Your task to perform on an android device: toggle translation in the chrome app Image 0: 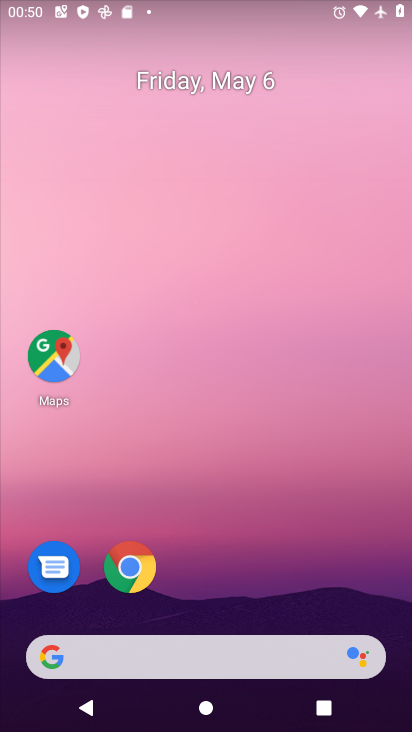
Step 0: click (118, 565)
Your task to perform on an android device: toggle translation in the chrome app Image 1: 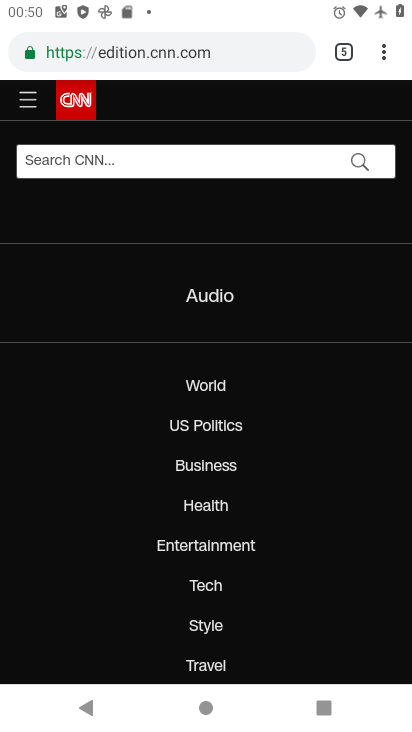
Step 1: press home button
Your task to perform on an android device: toggle translation in the chrome app Image 2: 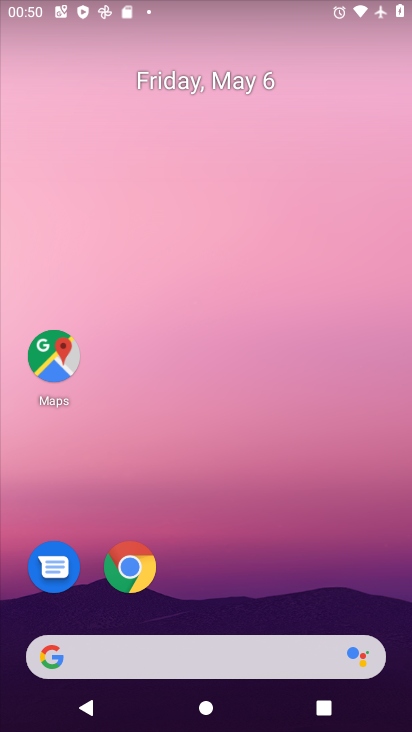
Step 2: click (164, 576)
Your task to perform on an android device: toggle translation in the chrome app Image 3: 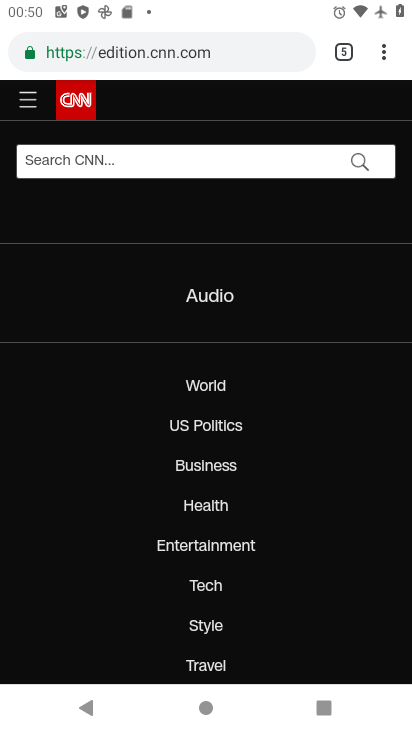
Step 3: click (384, 49)
Your task to perform on an android device: toggle translation in the chrome app Image 4: 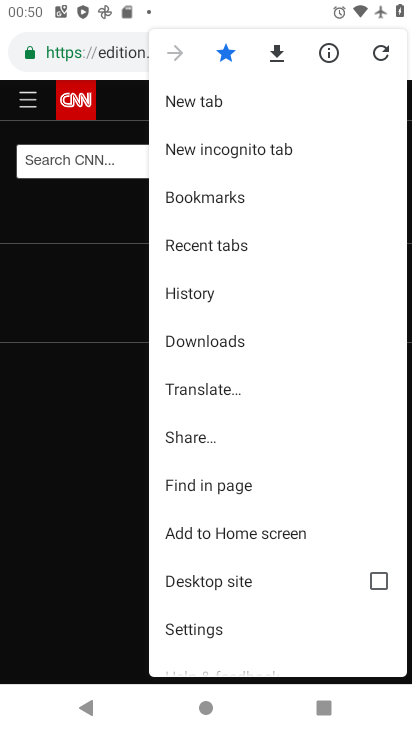
Step 4: click (203, 627)
Your task to perform on an android device: toggle translation in the chrome app Image 5: 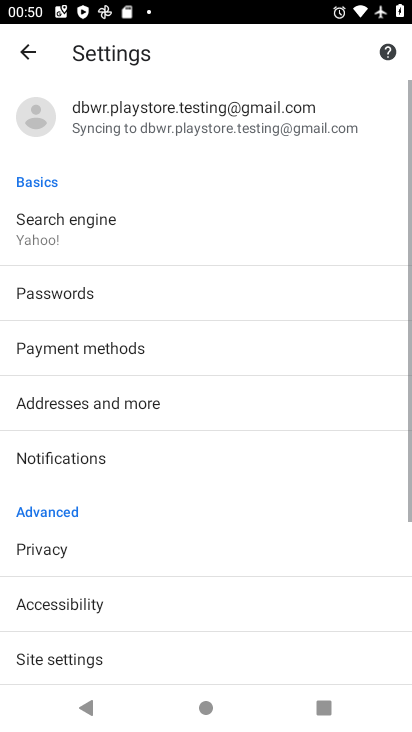
Step 5: drag from (205, 587) to (246, 308)
Your task to perform on an android device: toggle translation in the chrome app Image 6: 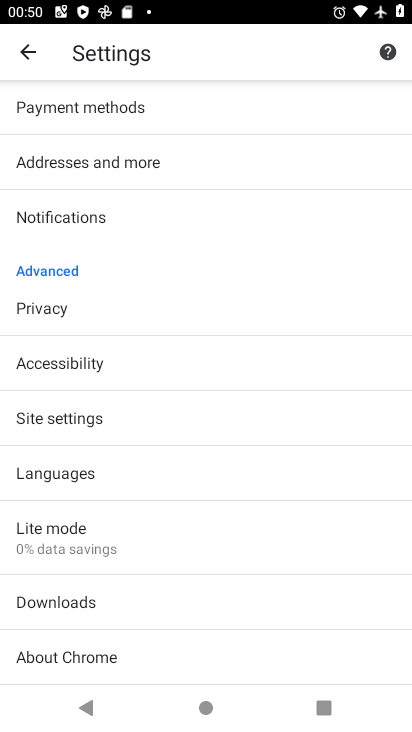
Step 6: click (132, 484)
Your task to perform on an android device: toggle translation in the chrome app Image 7: 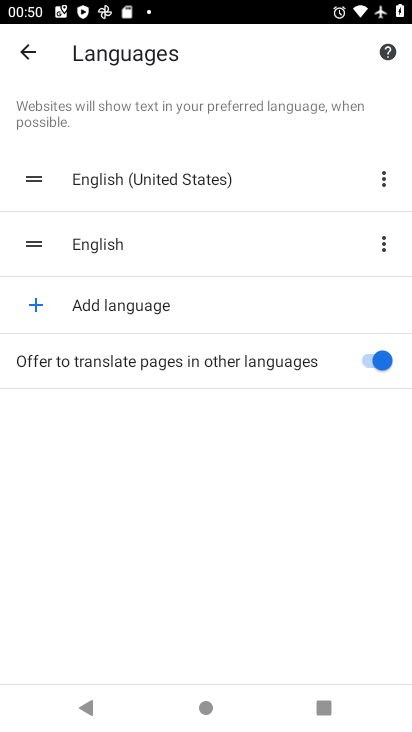
Step 7: click (366, 361)
Your task to perform on an android device: toggle translation in the chrome app Image 8: 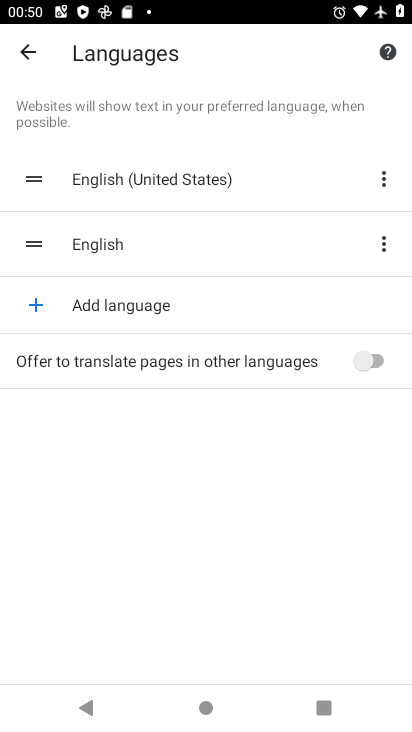
Step 8: task complete